Your task to perform on an android device: allow cookies in the chrome app Image 0: 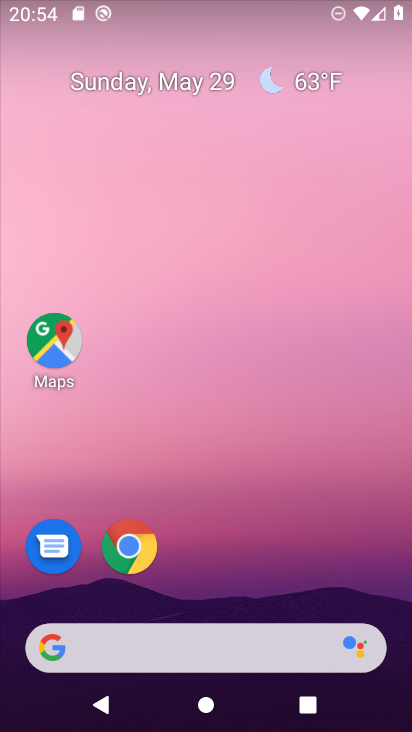
Step 0: click (135, 557)
Your task to perform on an android device: allow cookies in the chrome app Image 1: 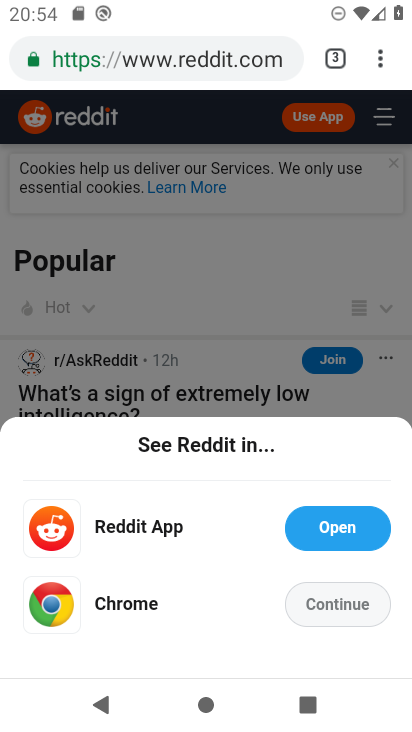
Step 1: drag from (382, 59) to (275, 582)
Your task to perform on an android device: allow cookies in the chrome app Image 2: 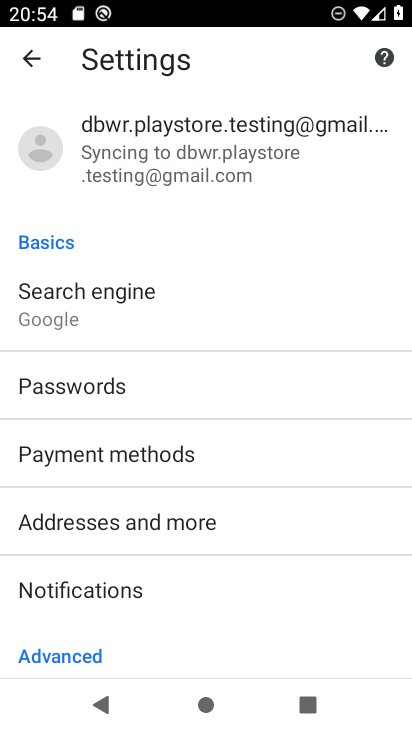
Step 2: drag from (161, 662) to (307, 211)
Your task to perform on an android device: allow cookies in the chrome app Image 3: 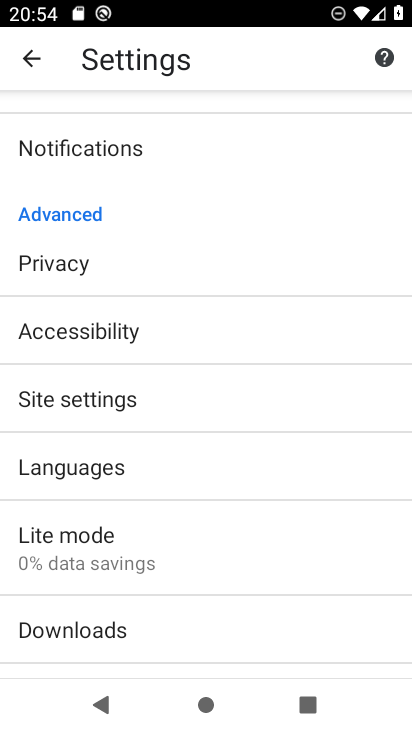
Step 3: click (79, 404)
Your task to perform on an android device: allow cookies in the chrome app Image 4: 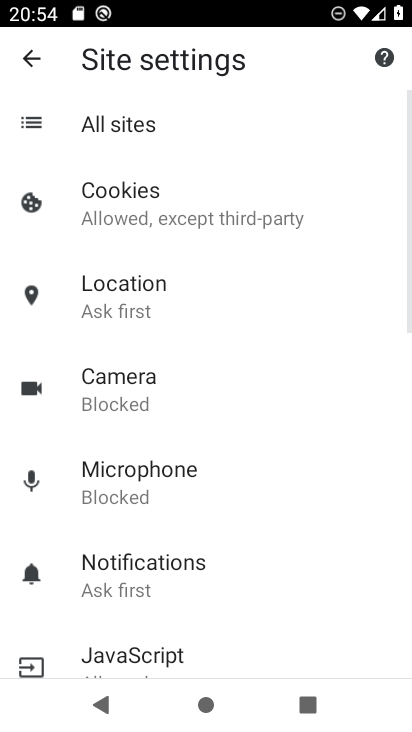
Step 4: click (171, 217)
Your task to perform on an android device: allow cookies in the chrome app Image 5: 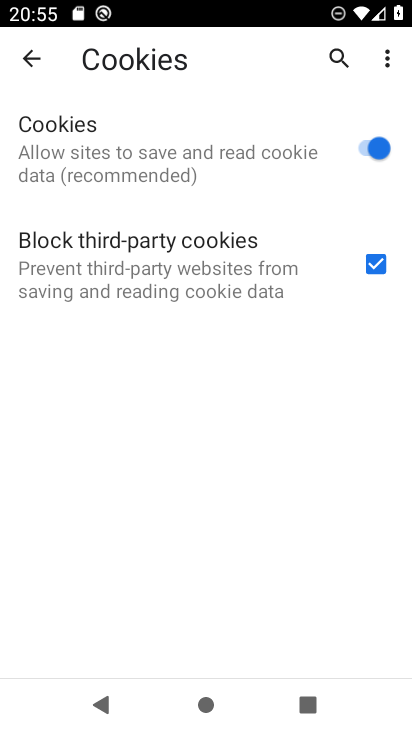
Step 5: task complete